Your task to perform on an android device: What's on my calendar tomorrow? Image 0: 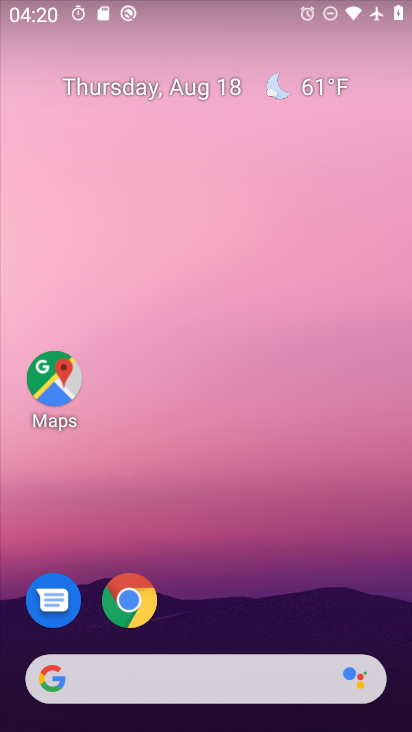
Step 0: press home button
Your task to perform on an android device: What's on my calendar tomorrow? Image 1: 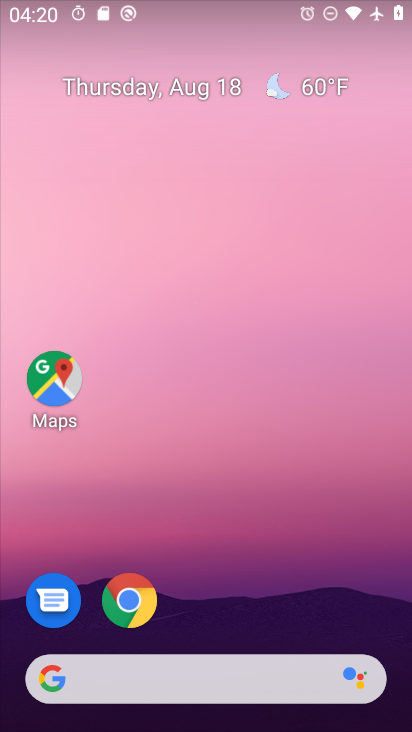
Step 1: drag from (249, 632) to (252, 116)
Your task to perform on an android device: What's on my calendar tomorrow? Image 2: 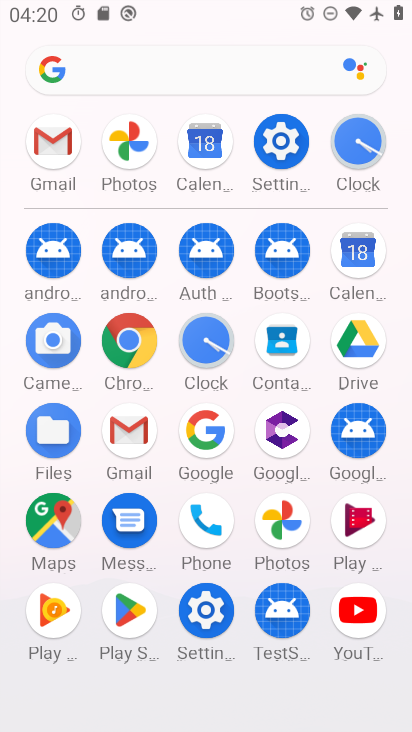
Step 2: click (195, 149)
Your task to perform on an android device: What's on my calendar tomorrow? Image 3: 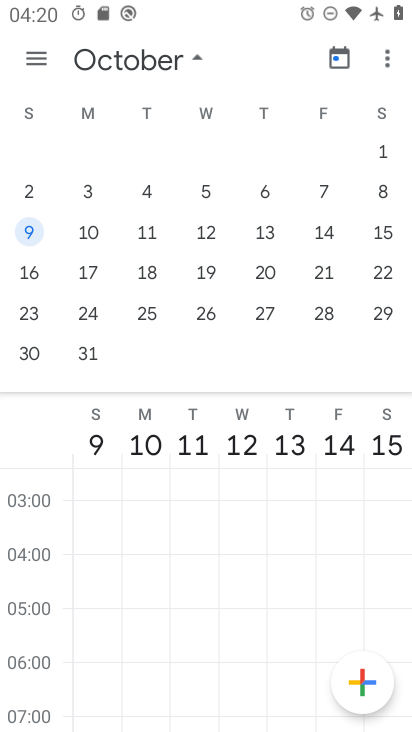
Step 3: drag from (71, 247) to (406, 256)
Your task to perform on an android device: What's on my calendar tomorrow? Image 4: 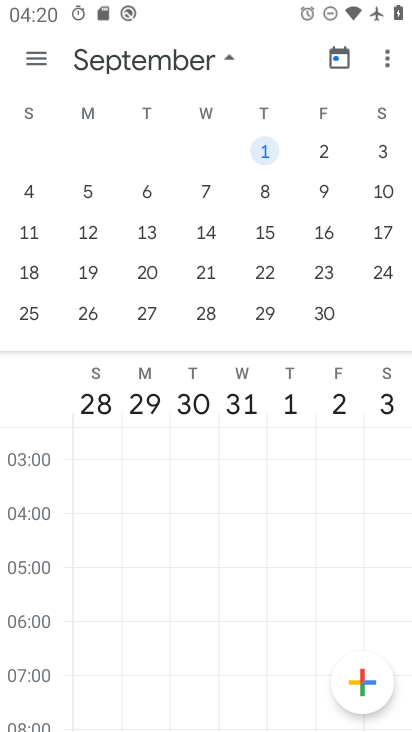
Step 4: drag from (67, 250) to (409, 251)
Your task to perform on an android device: What's on my calendar tomorrow? Image 5: 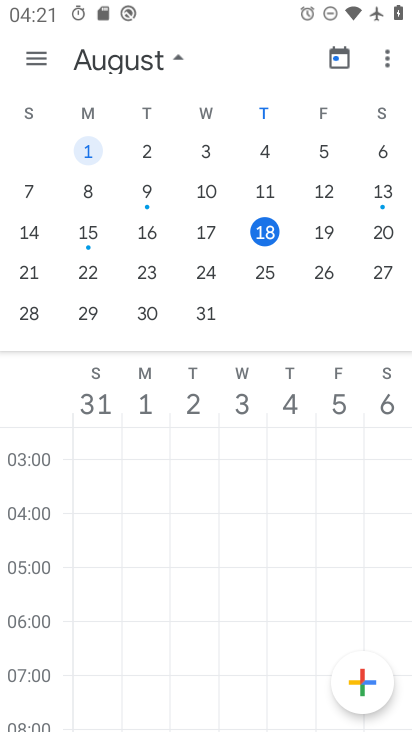
Step 5: click (329, 231)
Your task to perform on an android device: What's on my calendar tomorrow? Image 6: 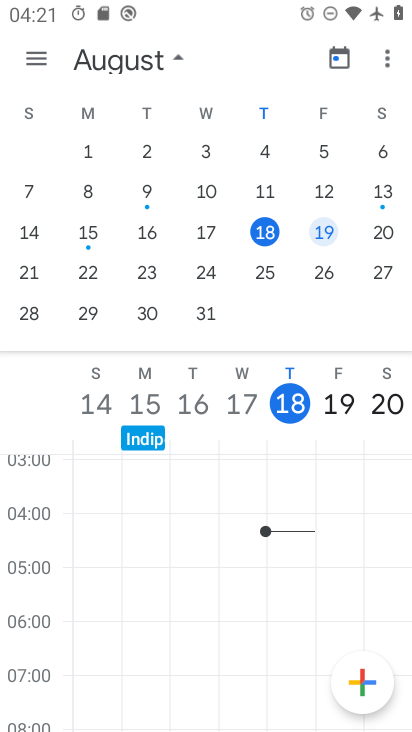
Step 6: task complete